Your task to perform on an android device: Open Yahoo.com Image 0: 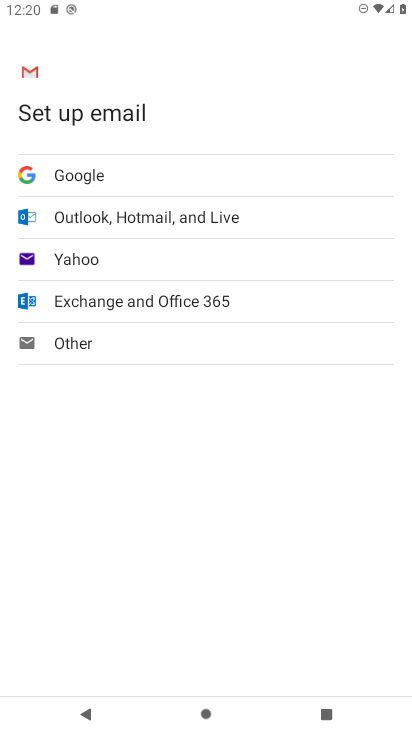
Step 0: press home button
Your task to perform on an android device: Open Yahoo.com Image 1: 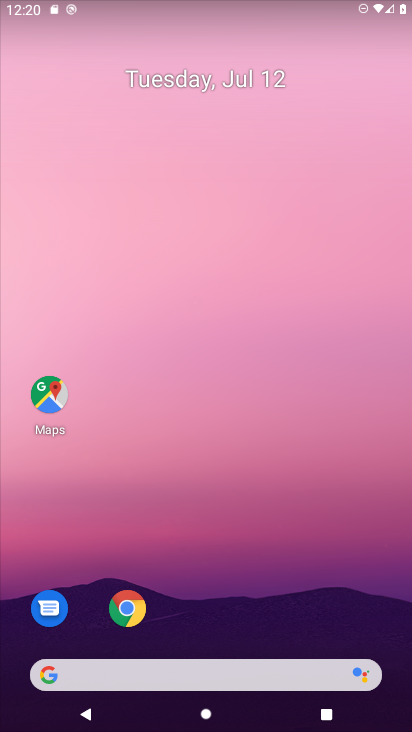
Step 1: drag from (204, 644) to (148, 80)
Your task to perform on an android device: Open Yahoo.com Image 2: 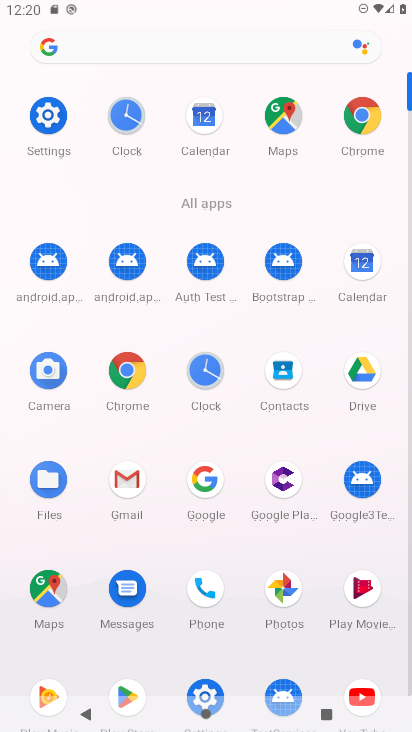
Step 2: click (366, 122)
Your task to perform on an android device: Open Yahoo.com Image 3: 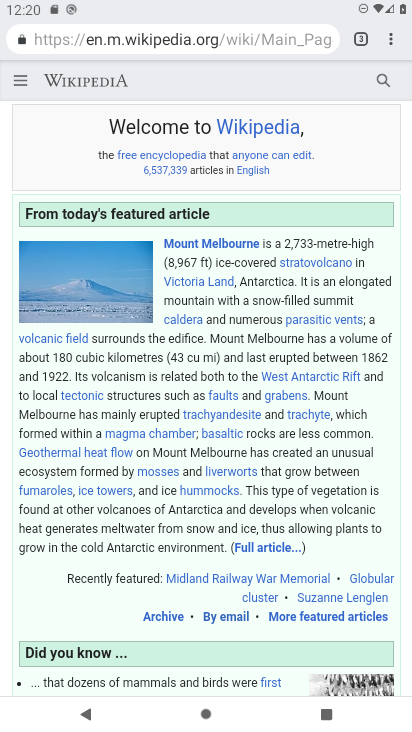
Step 3: click (361, 44)
Your task to perform on an android device: Open Yahoo.com Image 4: 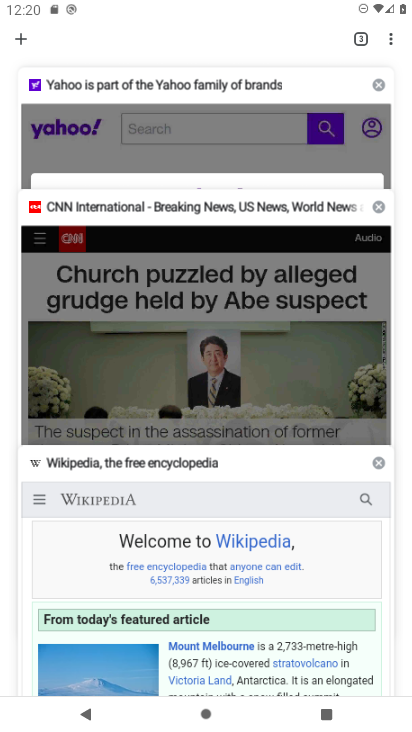
Step 4: click (42, 76)
Your task to perform on an android device: Open Yahoo.com Image 5: 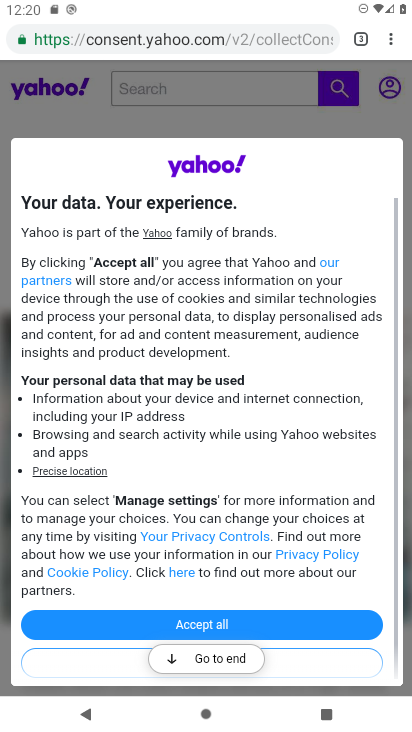
Step 5: click (260, 629)
Your task to perform on an android device: Open Yahoo.com Image 6: 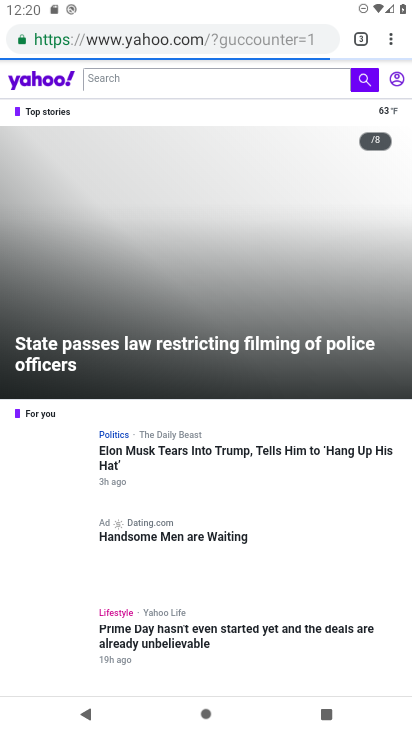
Step 6: task complete